Your task to perform on an android device: turn off priority inbox in the gmail app Image 0: 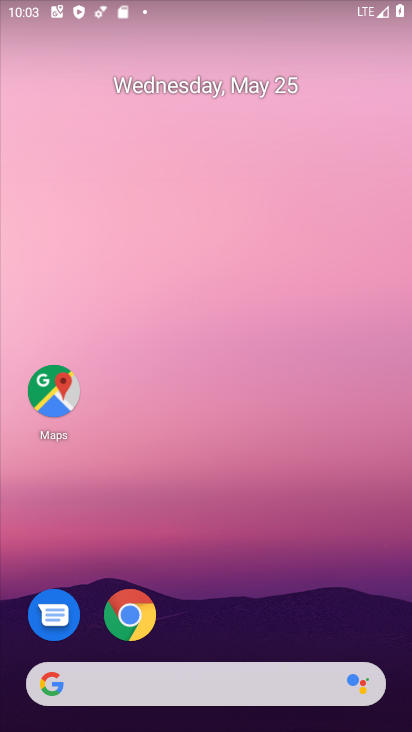
Step 0: drag from (312, 626) to (277, 21)
Your task to perform on an android device: turn off priority inbox in the gmail app Image 1: 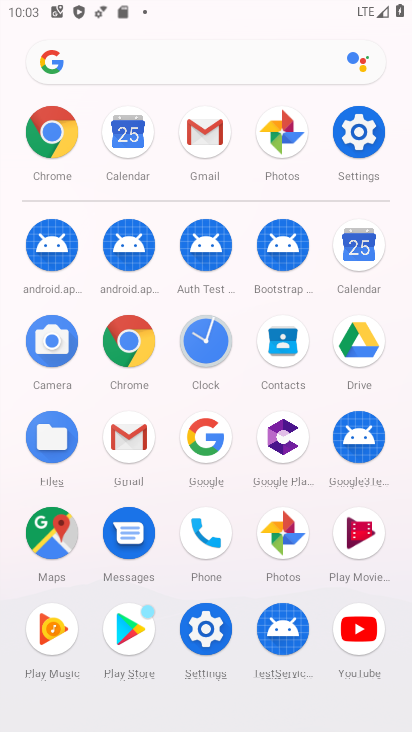
Step 1: click (212, 121)
Your task to perform on an android device: turn off priority inbox in the gmail app Image 2: 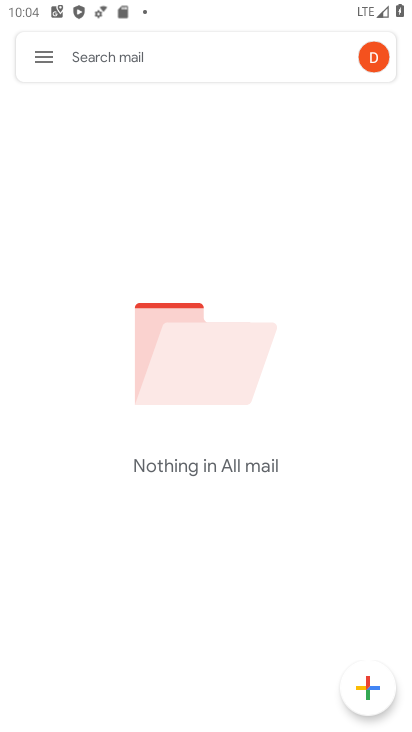
Step 2: click (46, 53)
Your task to perform on an android device: turn off priority inbox in the gmail app Image 3: 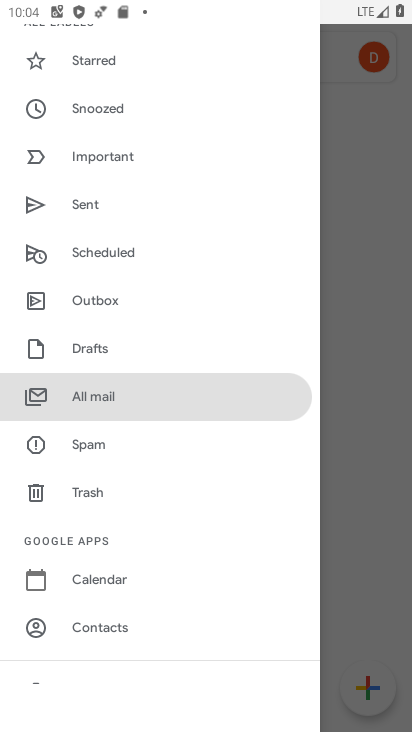
Step 3: drag from (185, 574) to (174, 336)
Your task to perform on an android device: turn off priority inbox in the gmail app Image 4: 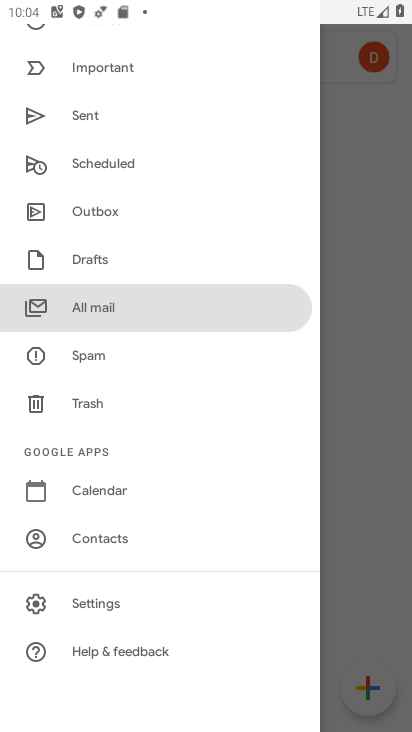
Step 4: click (109, 595)
Your task to perform on an android device: turn off priority inbox in the gmail app Image 5: 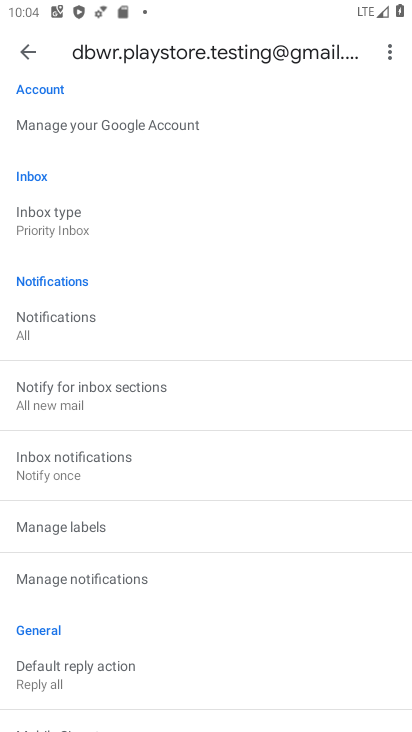
Step 5: click (87, 224)
Your task to perform on an android device: turn off priority inbox in the gmail app Image 6: 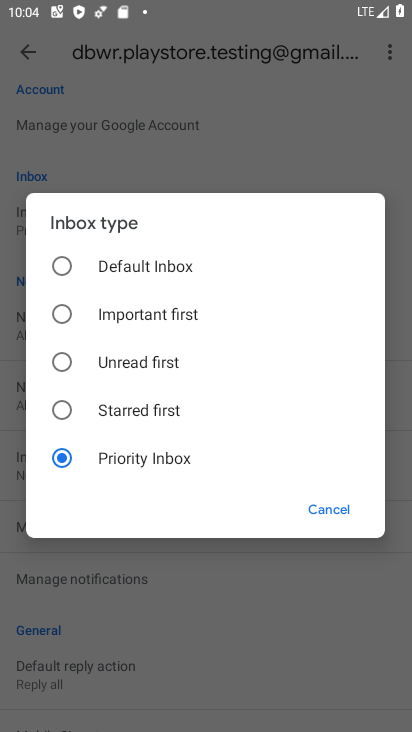
Step 6: click (79, 265)
Your task to perform on an android device: turn off priority inbox in the gmail app Image 7: 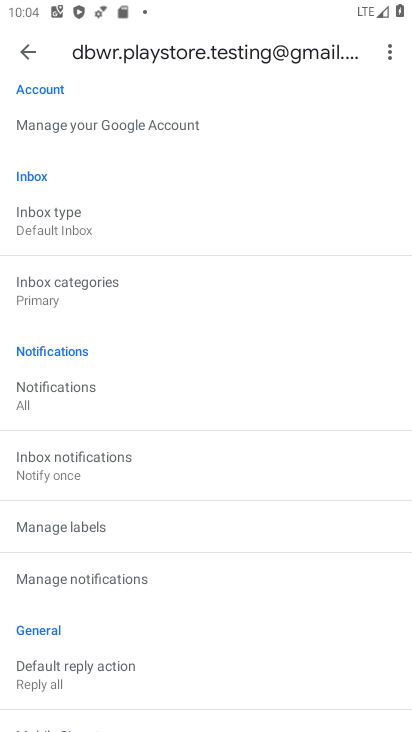
Step 7: task complete